Your task to perform on an android device: stop showing notifications on the lock screen Image 0: 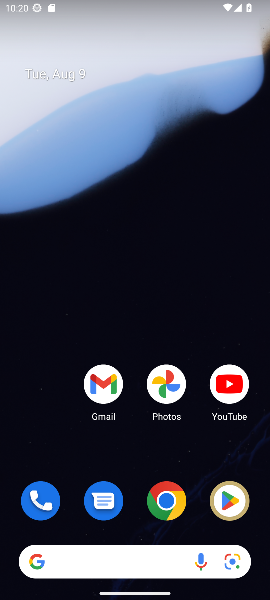
Step 0: drag from (123, 521) to (192, 137)
Your task to perform on an android device: stop showing notifications on the lock screen Image 1: 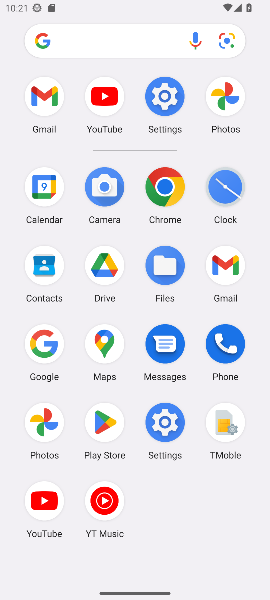
Step 1: click (162, 424)
Your task to perform on an android device: stop showing notifications on the lock screen Image 2: 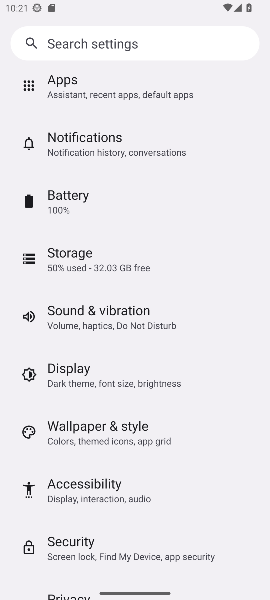
Step 2: drag from (98, 511) to (128, 293)
Your task to perform on an android device: stop showing notifications on the lock screen Image 3: 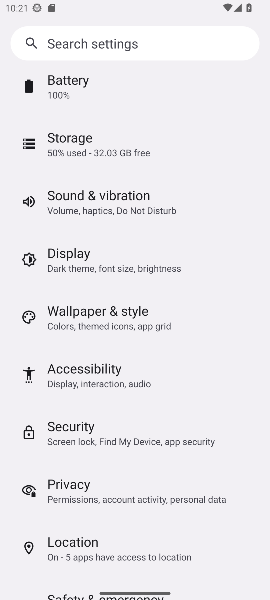
Step 3: drag from (110, 508) to (144, 267)
Your task to perform on an android device: stop showing notifications on the lock screen Image 4: 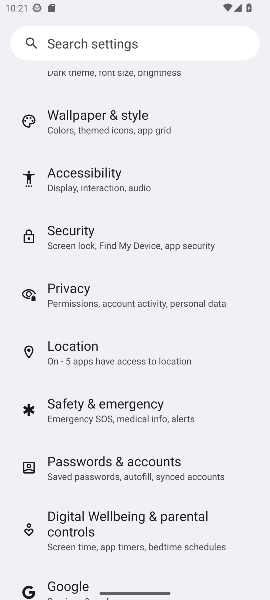
Step 4: drag from (107, 491) to (149, 240)
Your task to perform on an android device: stop showing notifications on the lock screen Image 5: 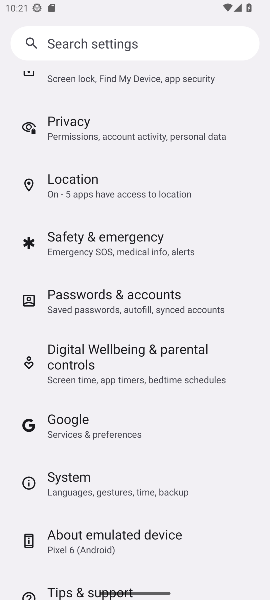
Step 5: drag from (131, 141) to (92, 463)
Your task to perform on an android device: stop showing notifications on the lock screen Image 6: 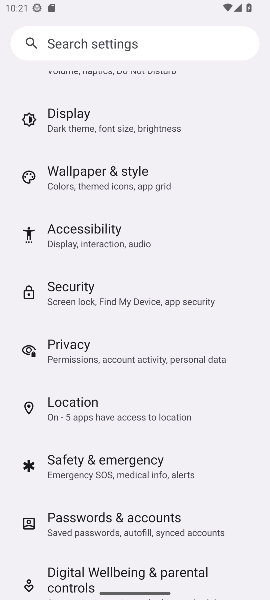
Step 6: drag from (146, 194) to (81, 492)
Your task to perform on an android device: stop showing notifications on the lock screen Image 7: 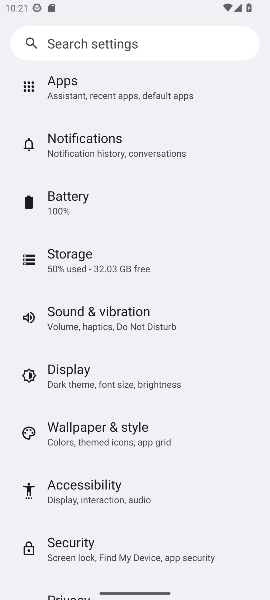
Step 7: click (69, 147)
Your task to perform on an android device: stop showing notifications on the lock screen Image 8: 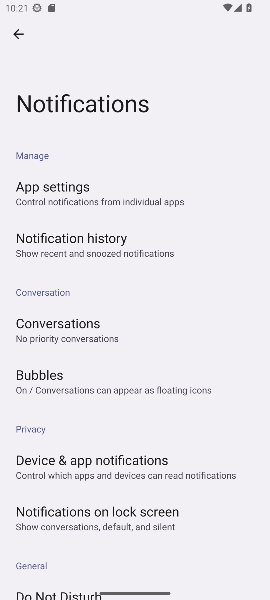
Step 8: click (156, 510)
Your task to perform on an android device: stop showing notifications on the lock screen Image 9: 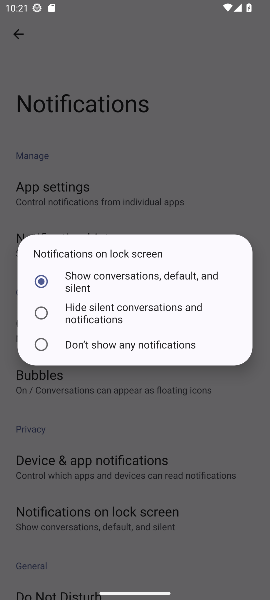
Step 9: click (30, 354)
Your task to perform on an android device: stop showing notifications on the lock screen Image 10: 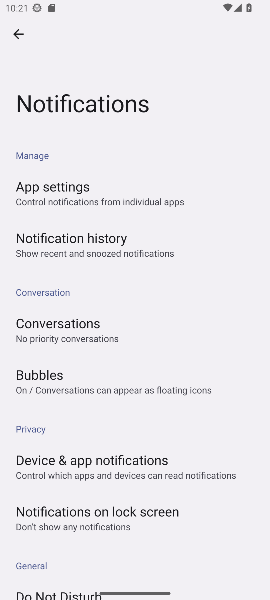
Step 10: task complete